Your task to perform on an android device: open app "Paramount+ | Peak Streaming" (install if not already installed) and enter user name: "fostered@yahoo.com" and password: "strong" Image 0: 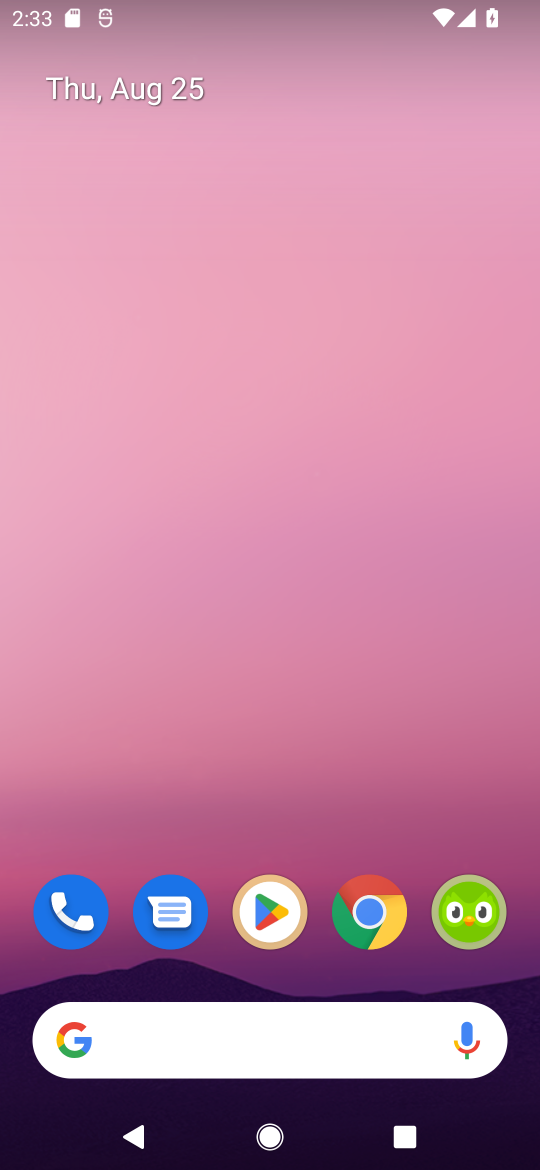
Step 0: drag from (293, 887) to (312, 147)
Your task to perform on an android device: open app "Paramount+ | Peak Streaming" (install if not already installed) and enter user name: "fostered@yahoo.com" and password: "strong" Image 1: 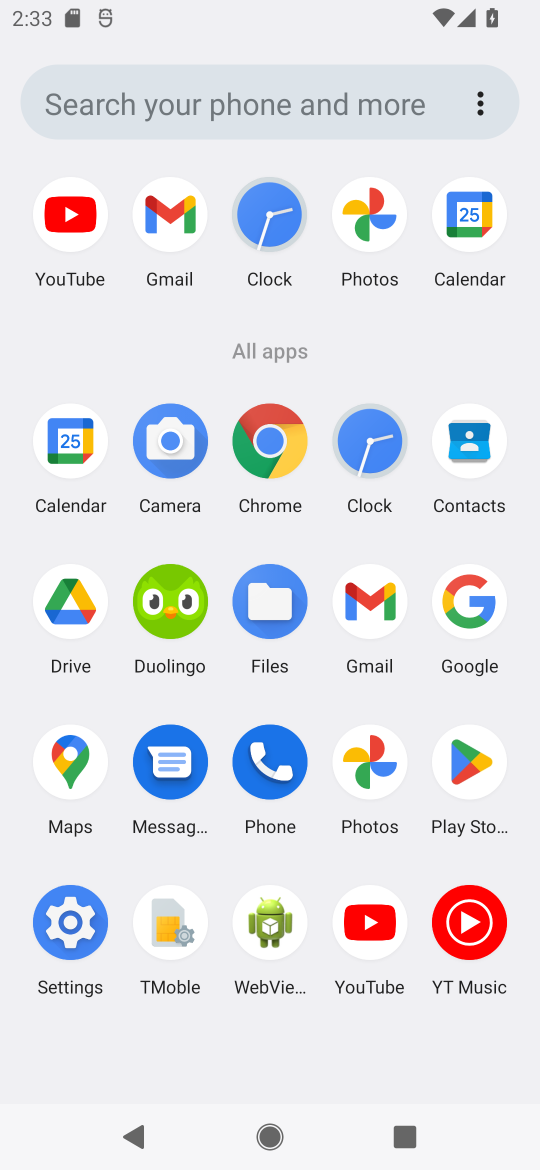
Step 1: click (460, 756)
Your task to perform on an android device: open app "Paramount+ | Peak Streaming" (install if not already installed) and enter user name: "fostered@yahoo.com" and password: "strong" Image 2: 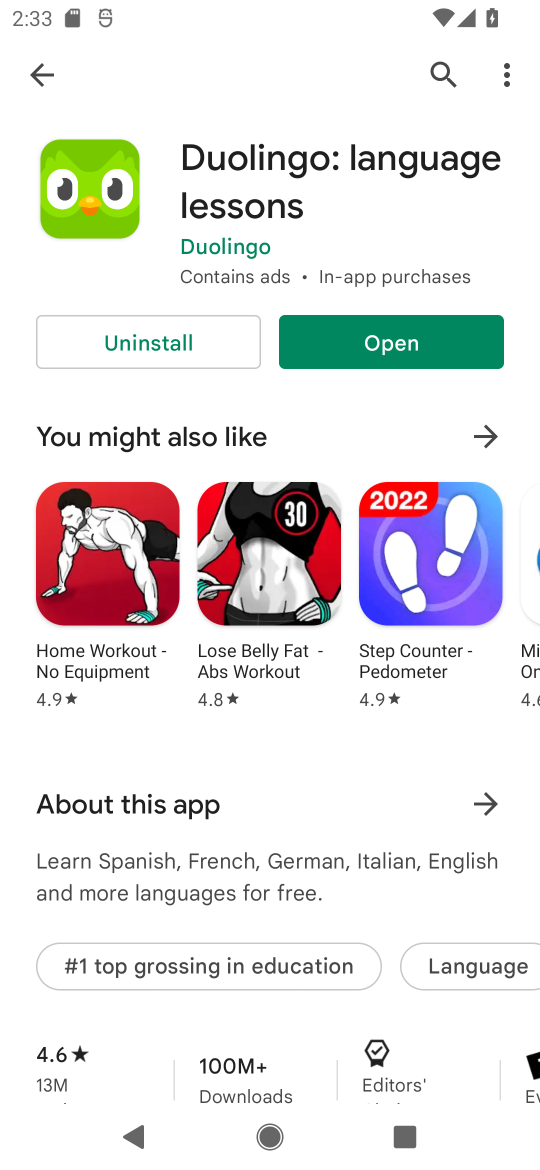
Step 2: click (448, 70)
Your task to perform on an android device: open app "Paramount+ | Peak Streaming" (install if not already installed) and enter user name: "fostered@yahoo.com" and password: "strong" Image 3: 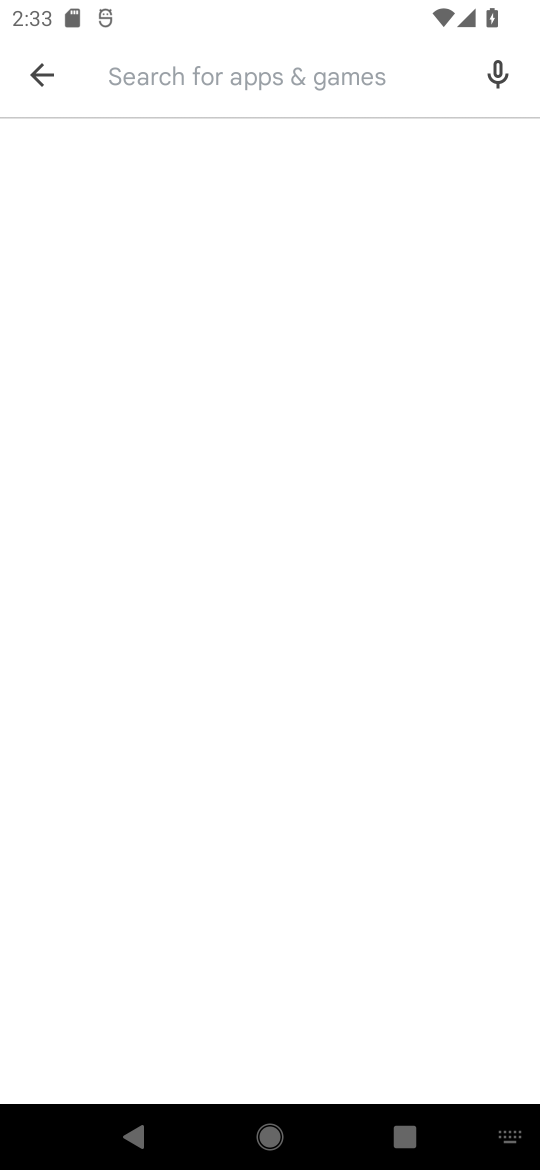
Step 3: type "Paramount+ | Peak Streaming"
Your task to perform on an android device: open app "Paramount+ | Peak Streaming" (install if not already installed) and enter user name: "fostered@yahoo.com" and password: "strong" Image 4: 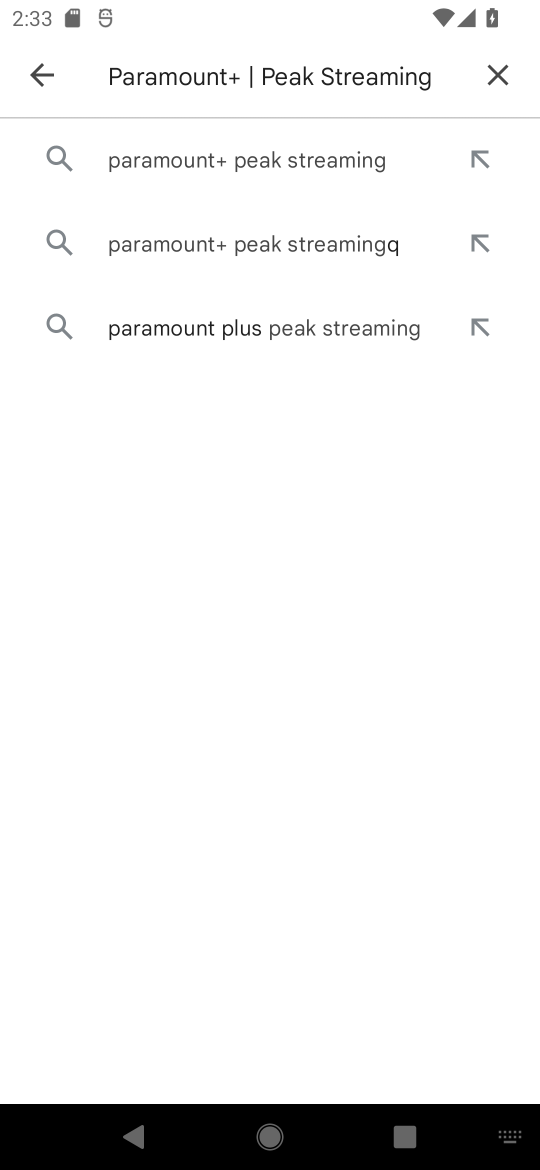
Step 4: click (371, 160)
Your task to perform on an android device: open app "Paramount+ | Peak Streaming" (install if not already installed) and enter user name: "fostered@yahoo.com" and password: "strong" Image 5: 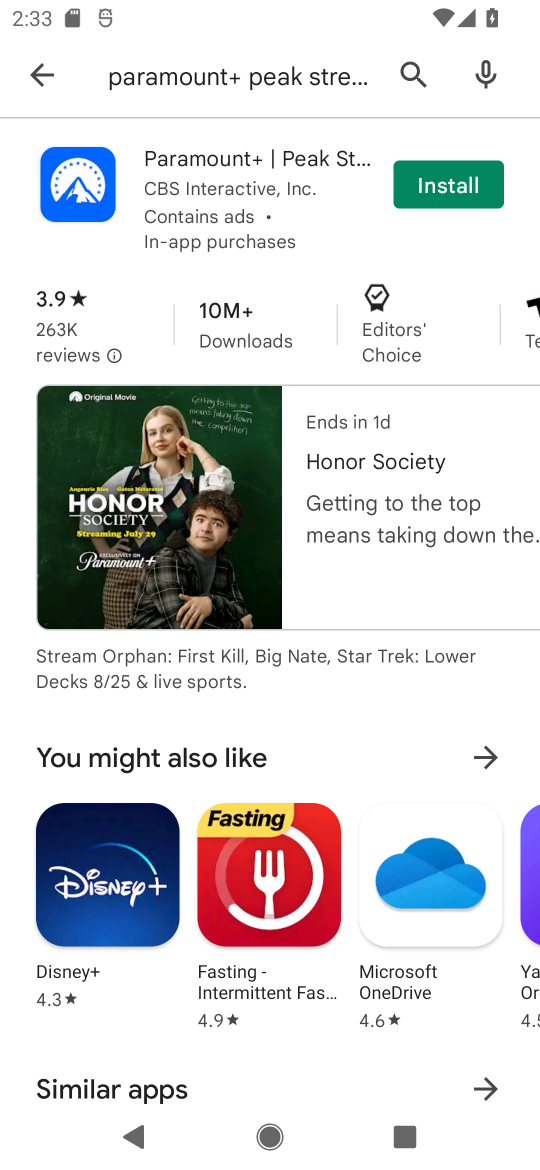
Step 5: click (433, 185)
Your task to perform on an android device: open app "Paramount+ | Peak Streaming" (install if not already installed) and enter user name: "fostered@yahoo.com" and password: "strong" Image 6: 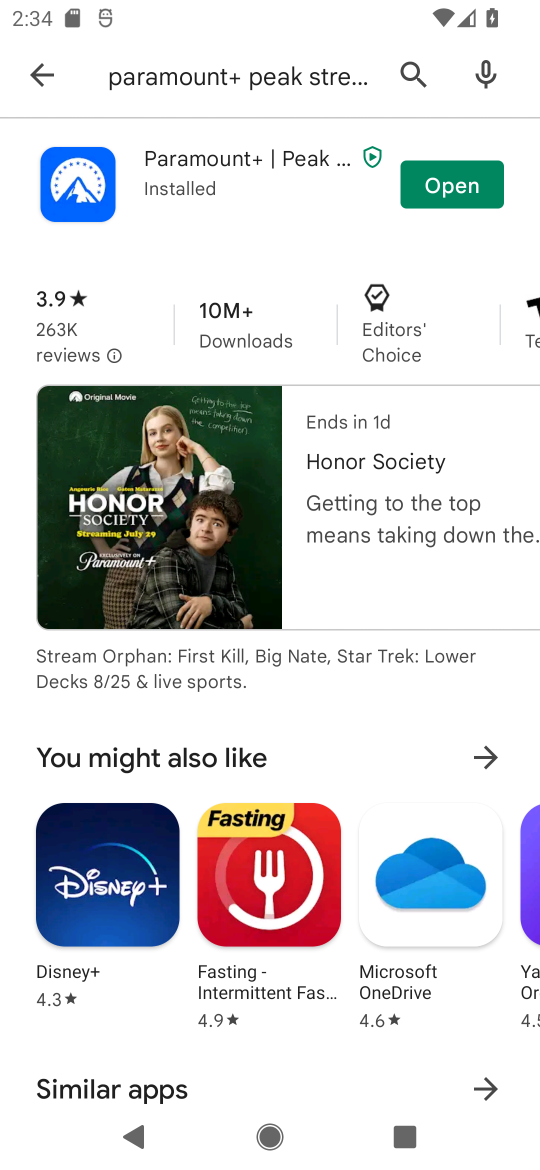
Step 6: click (427, 181)
Your task to perform on an android device: open app "Paramount+ | Peak Streaming" (install if not already installed) and enter user name: "fostered@yahoo.com" and password: "strong" Image 7: 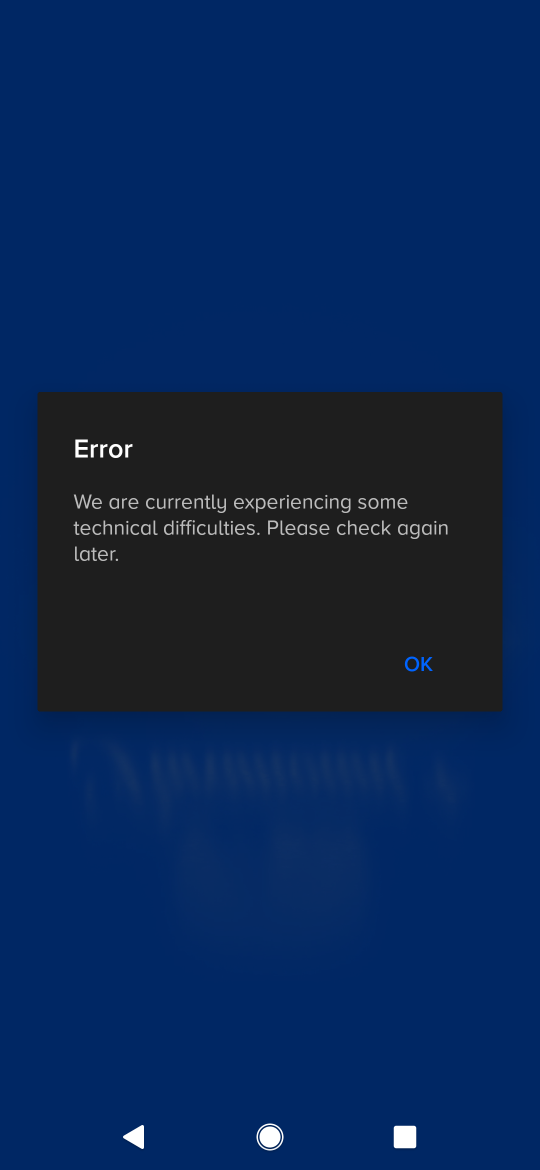
Step 7: click (429, 663)
Your task to perform on an android device: open app "Paramount+ | Peak Streaming" (install if not already installed) and enter user name: "fostered@yahoo.com" and password: "strong" Image 8: 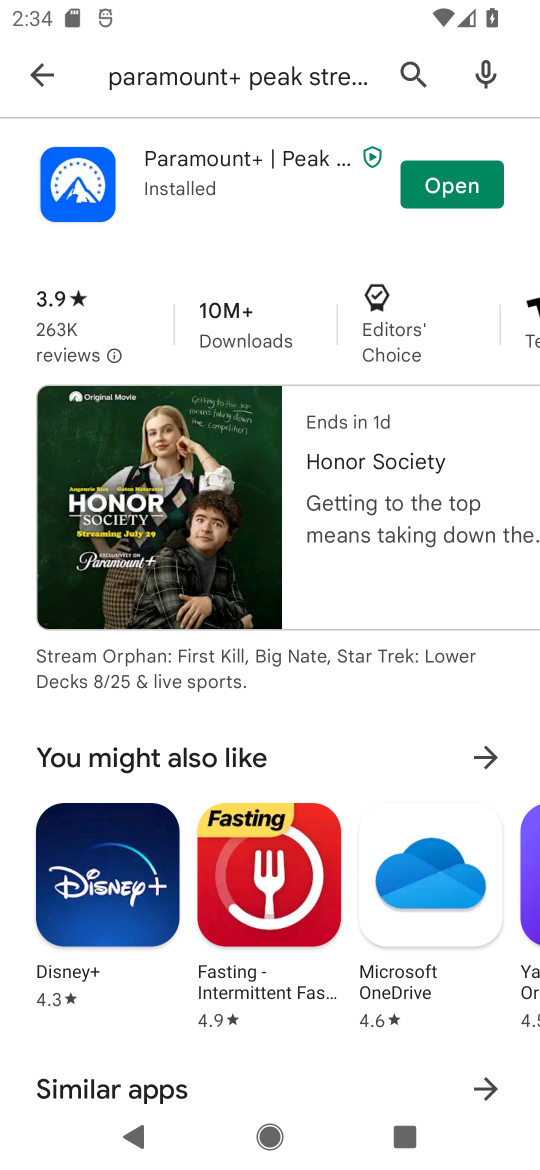
Step 8: task complete